Your task to perform on an android device: read, delete, or share a saved page in the chrome app Image 0: 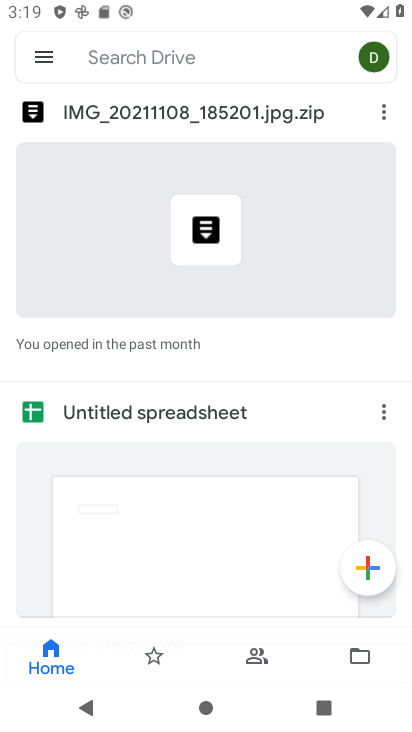
Step 0: press home button
Your task to perform on an android device: read, delete, or share a saved page in the chrome app Image 1: 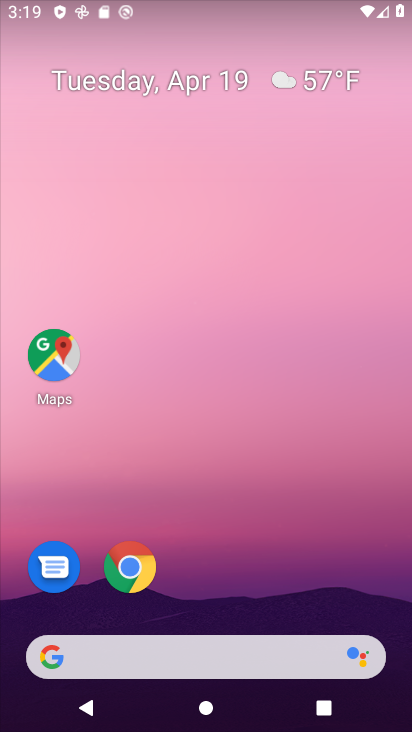
Step 1: drag from (371, 601) to (365, 76)
Your task to perform on an android device: read, delete, or share a saved page in the chrome app Image 2: 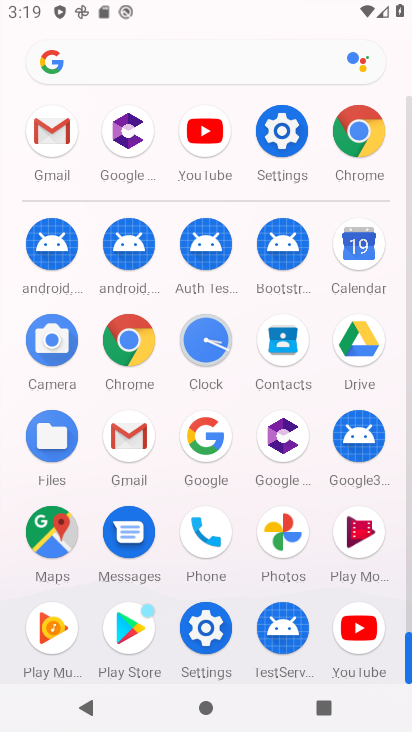
Step 2: click (365, 146)
Your task to perform on an android device: read, delete, or share a saved page in the chrome app Image 3: 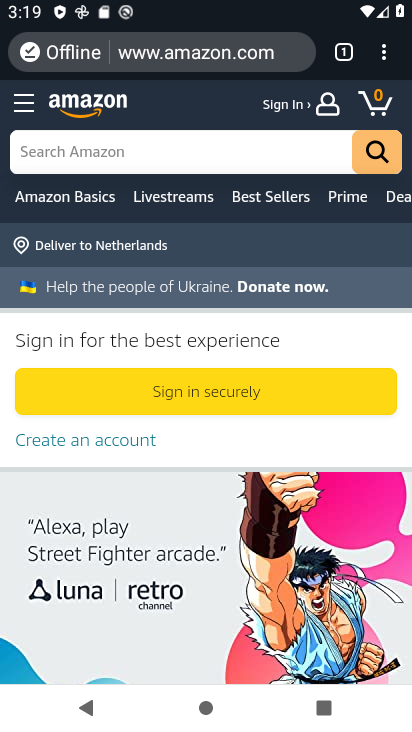
Step 3: click (390, 56)
Your task to perform on an android device: read, delete, or share a saved page in the chrome app Image 4: 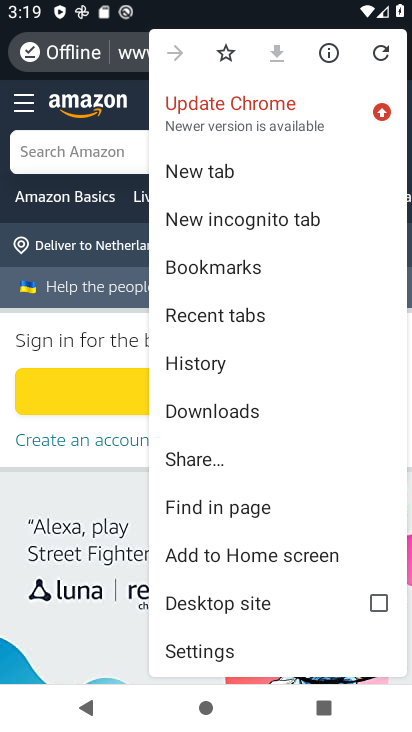
Step 4: click (235, 416)
Your task to perform on an android device: read, delete, or share a saved page in the chrome app Image 5: 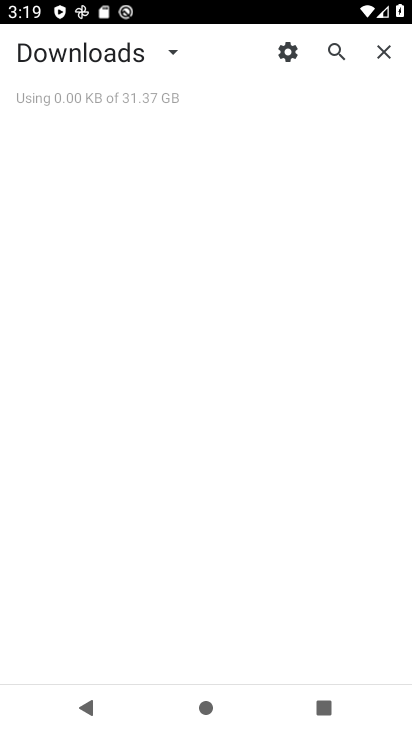
Step 5: click (173, 52)
Your task to perform on an android device: read, delete, or share a saved page in the chrome app Image 6: 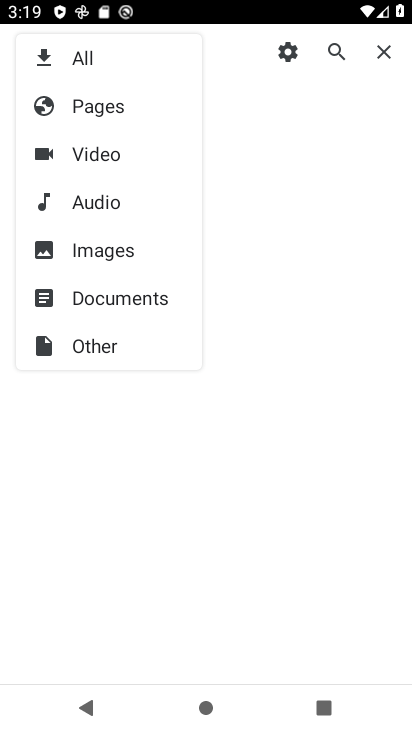
Step 6: click (108, 107)
Your task to perform on an android device: read, delete, or share a saved page in the chrome app Image 7: 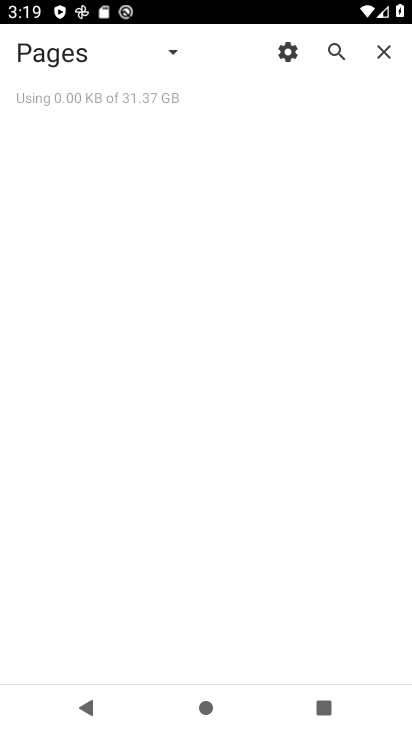
Step 7: task complete